Your task to perform on an android device: Open CNN.com Image 0: 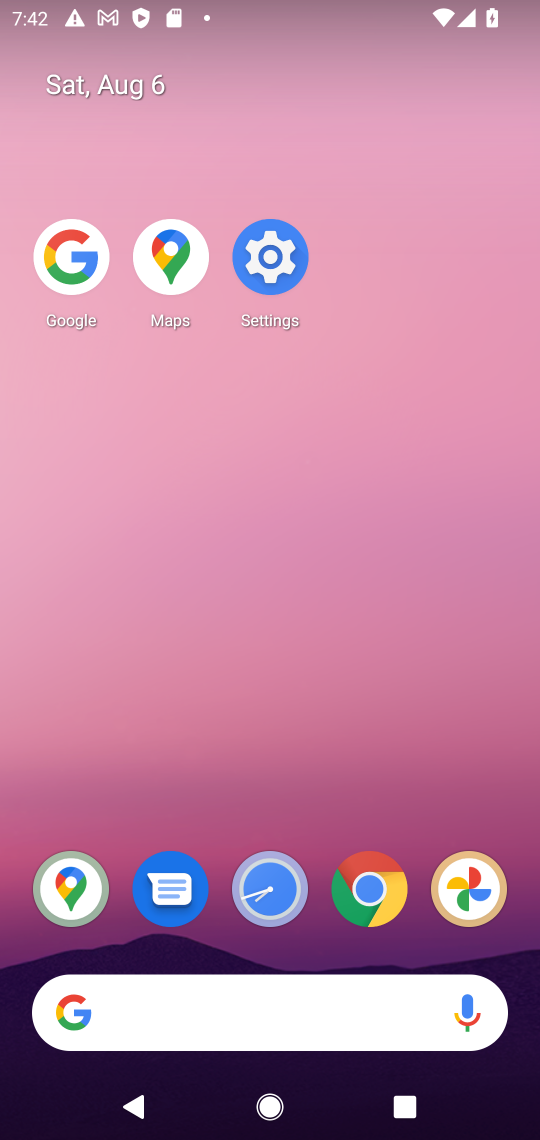
Step 0: click (356, 893)
Your task to perform on an android device: Open CNN.com Image 1: 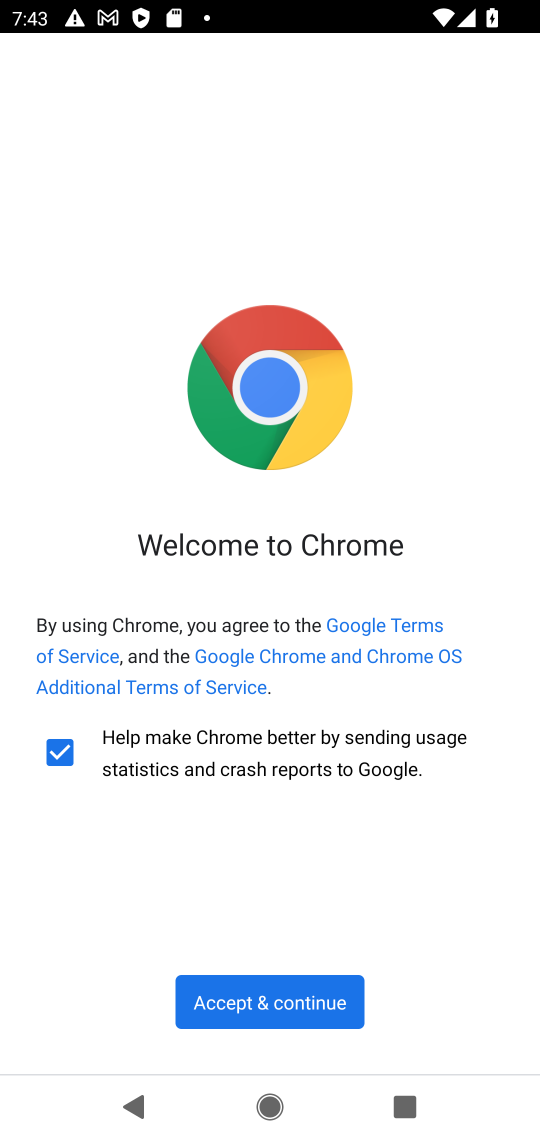
Step 1: click (221, 999)
Your task to perform on an android device: Open CNN.com Image 2: 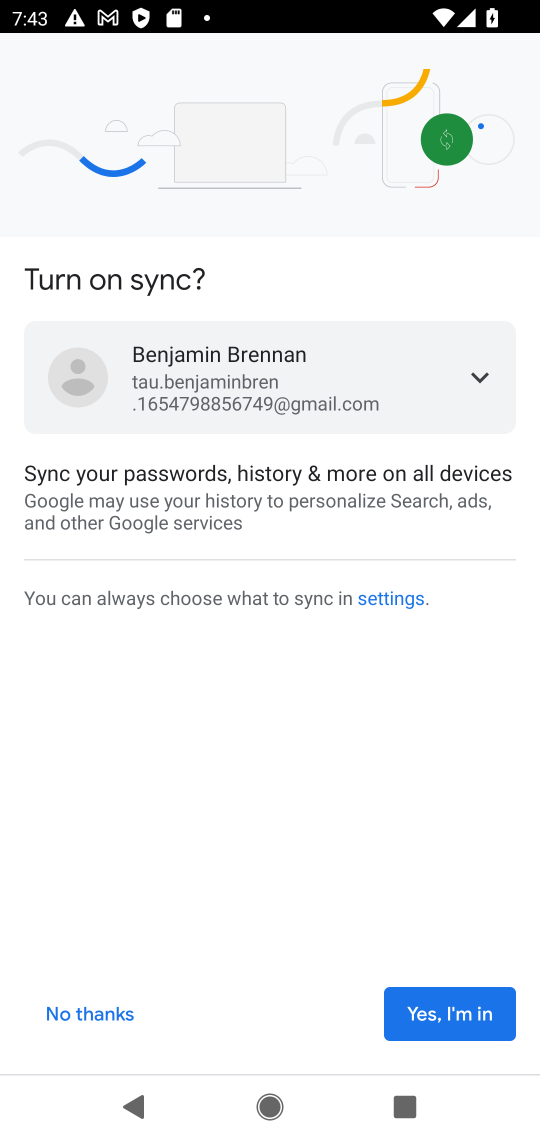
Step 2: click (491, 1003)
Your task to perform on an android device: Open CNN.com Image 3: 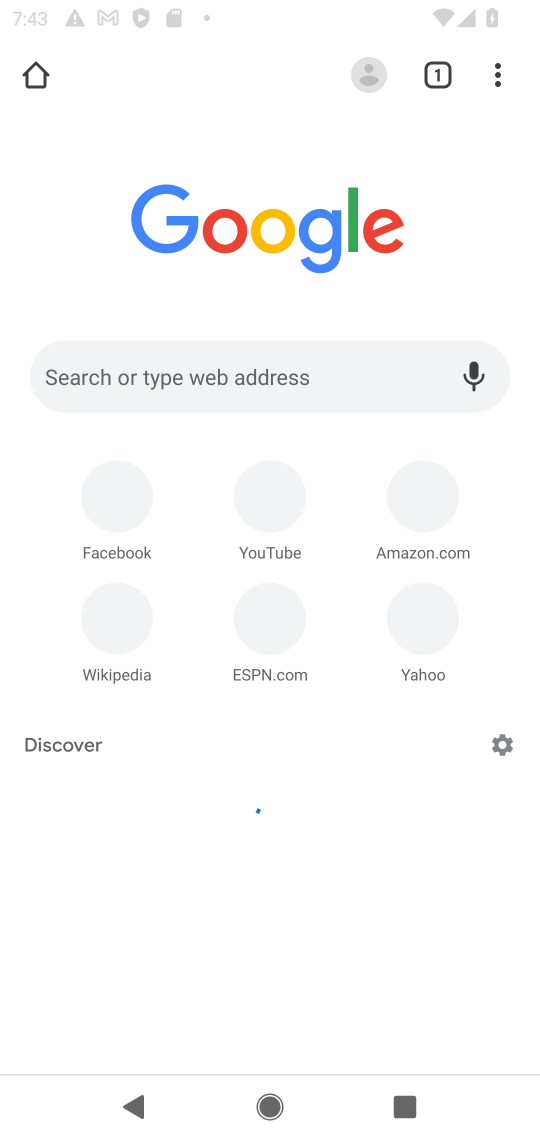
Step 3: click (491, 1013)
Your task to perform on an android device: Open CNN.com Image 4: 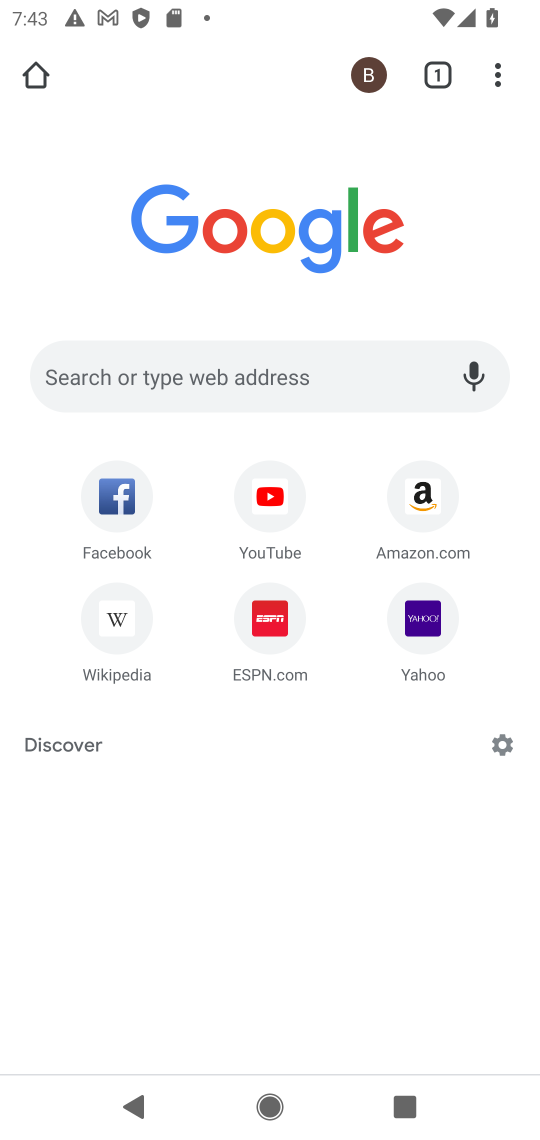
Step 4: click (297, 367)
Your task to perform on an android device: Open CNN.com Image 5: 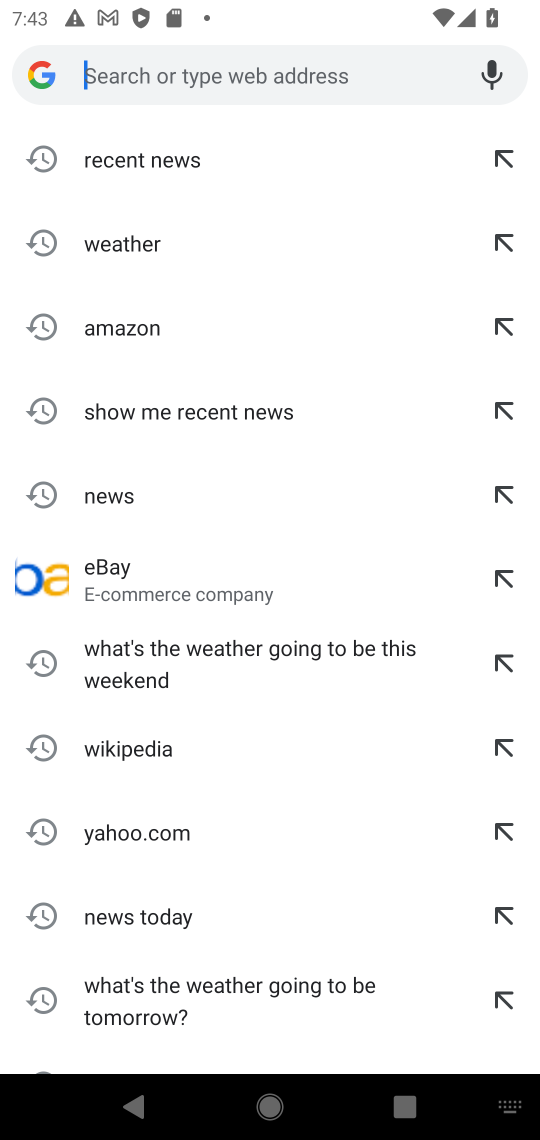
Step 5: type "cnn"
Your task to perform on an android device: Open CNN.com Image 6: 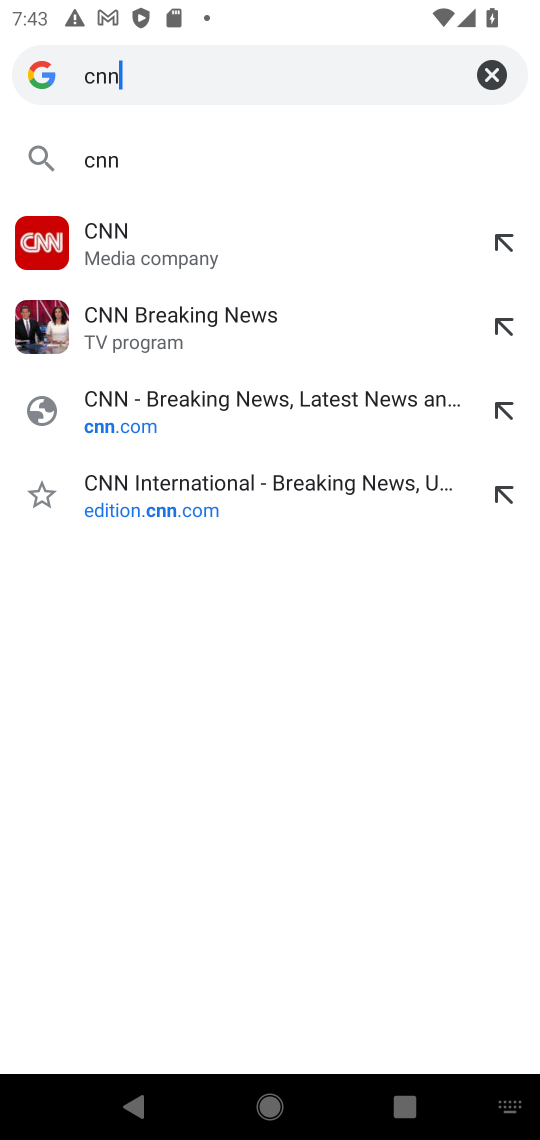
Step 6: click (220, 220)
Your task to perform on an android device: Open CNN.com Image 7: 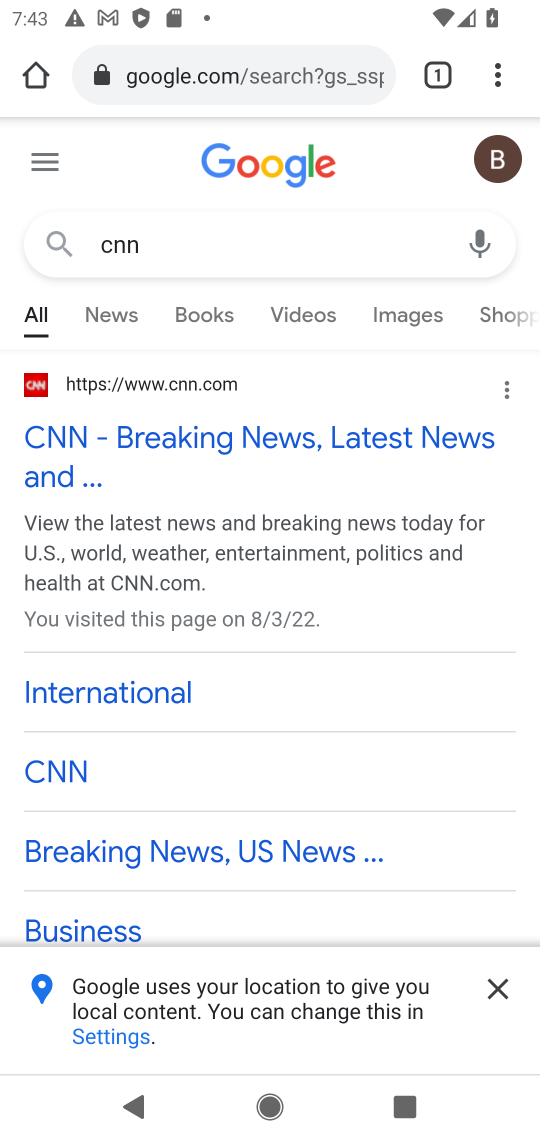
Step 7: task complete